Your task to perform on an android device: Search for Italian restaurants on Maps Image 0: 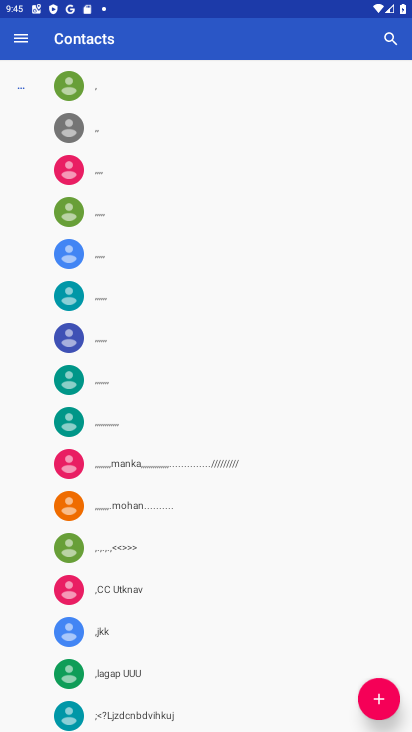
Step 0: press home button
Your task to perform on an android device: Search for Italian restaurants on Maps Image 1: 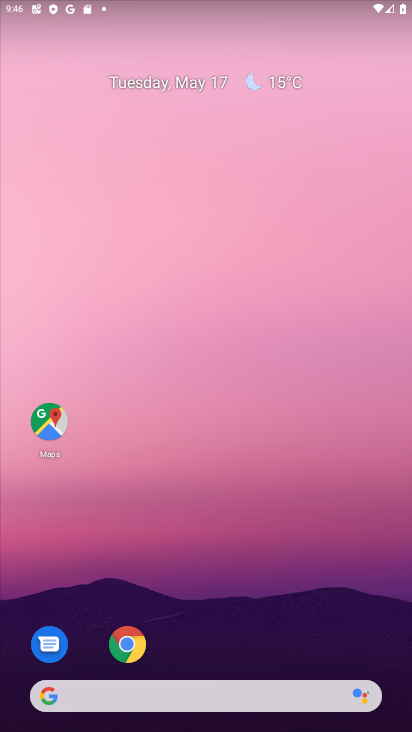
Step 1: click (46, 416)
Your task to perform on an android device: Search for Italian restaurants on Maps Image 2: 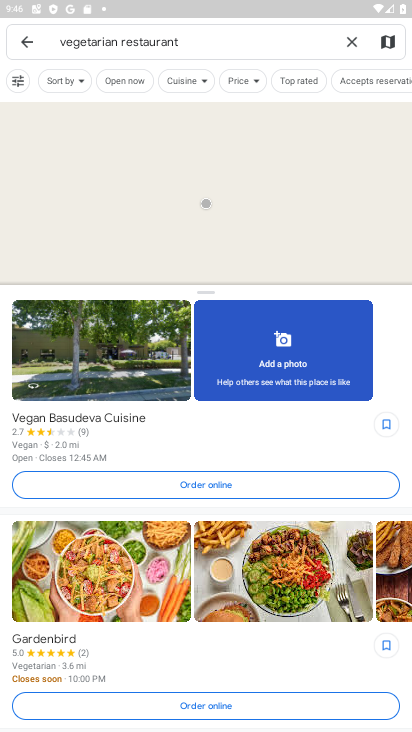
Step 2: click (353, 43)
Your task to perform on an android device: Search for Italian restaurants on Maps Image 3: 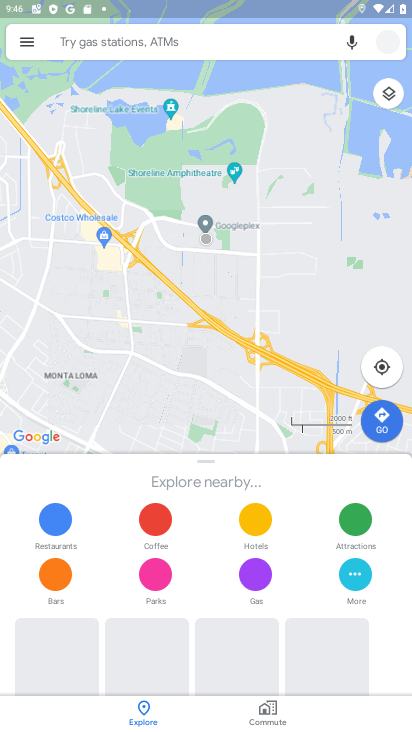
Step 3: click (202, 36)
Your task to perform on an android device: Search for Italian restaurants on Maps Image 4: 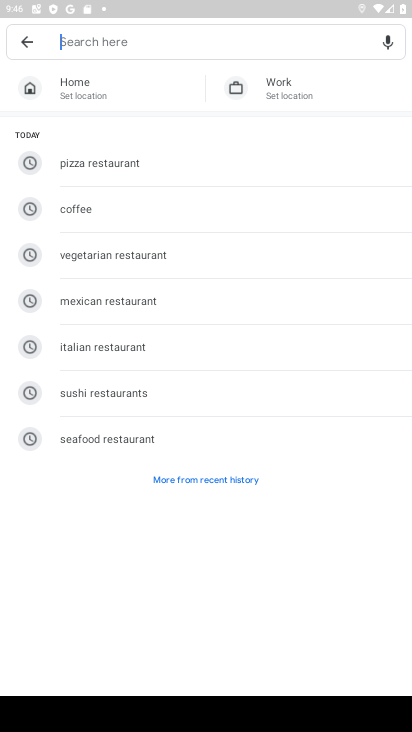
Step 4: click (103, 345)
Your task to perform on an android device: Search for Italian restaurants on Maps Image 5: 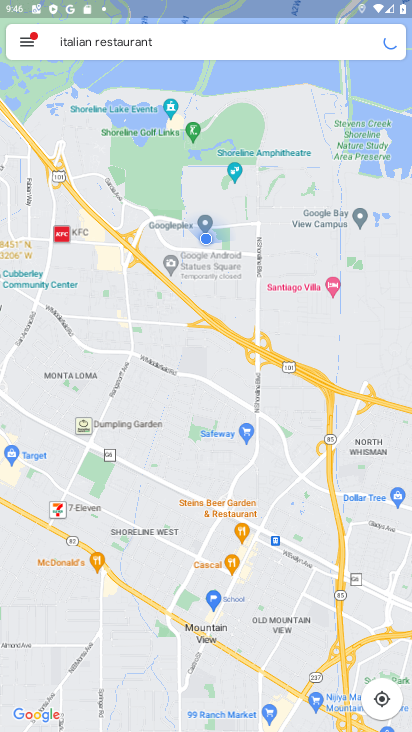
Step 5: task complete